Your task to perform on an android device: delete location history Image 0: 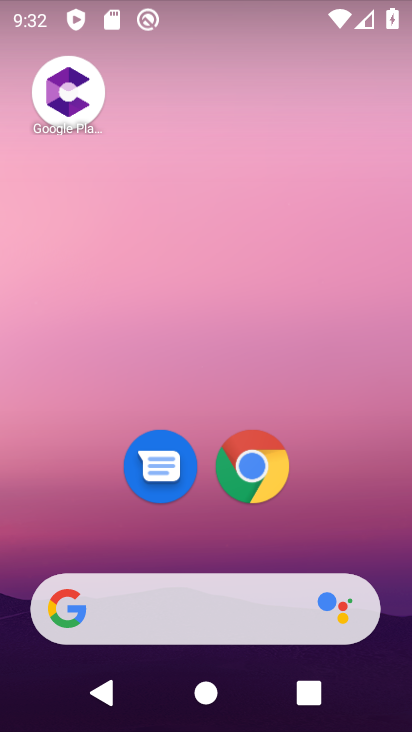
Step 0: drag from (198, 538) to (206, 0)
Your task to perform on an android device: delete location history Image 1: 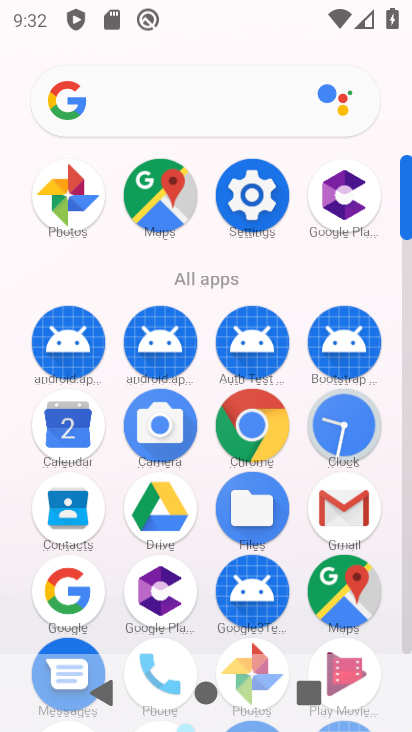
Step 1: click (355, 587)
Your task to perform on an android device: delete location history Image 2: 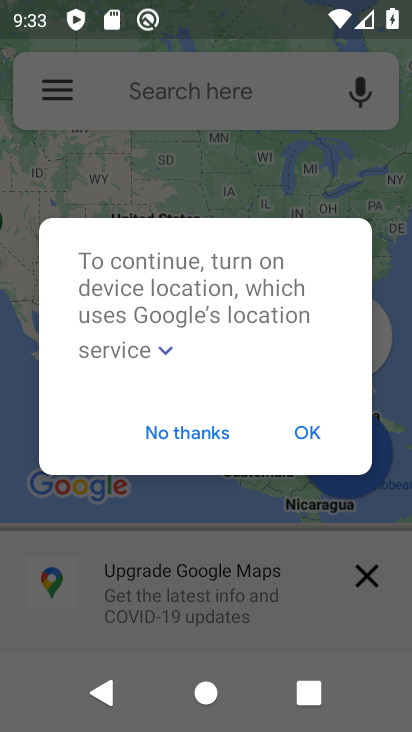
Step 2: click (195, 431)
Your task to perform on an android device: delete location history Image 3: 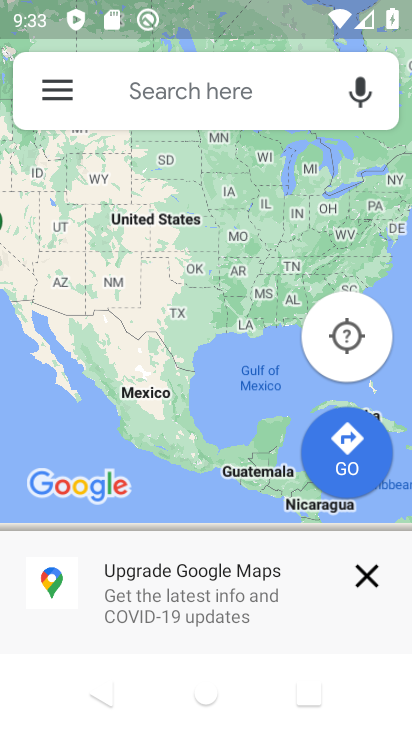
Step 3: click (39, 90)
Your task to perform on an android device: delete location history Image 4: 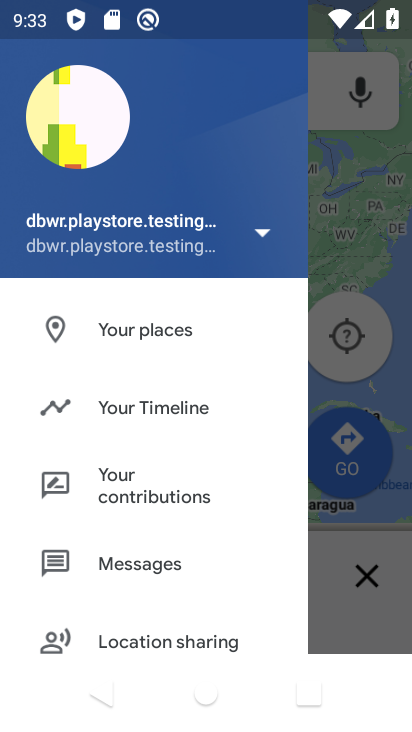
Step 4: click (178, 398)
Your task to perform on an android device: delete location history Image 5: 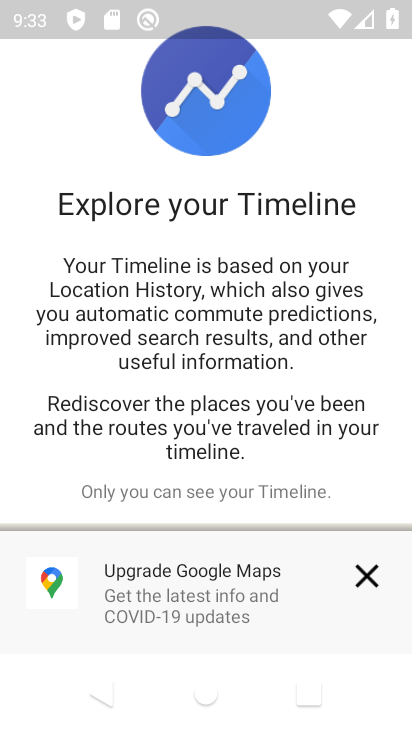
Step 5: click (358, 572)
Your task to perform on an android device: delete location history Image 6: 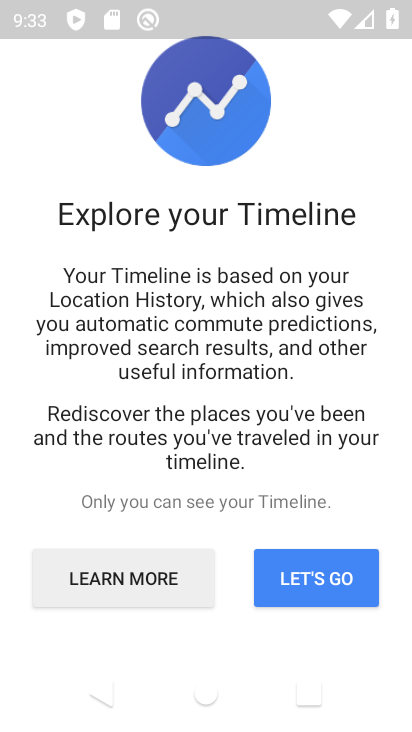
Step 6: drag from (225, 505) to (192, 186)
Your task to perform on an android device: delete location history Image 7: 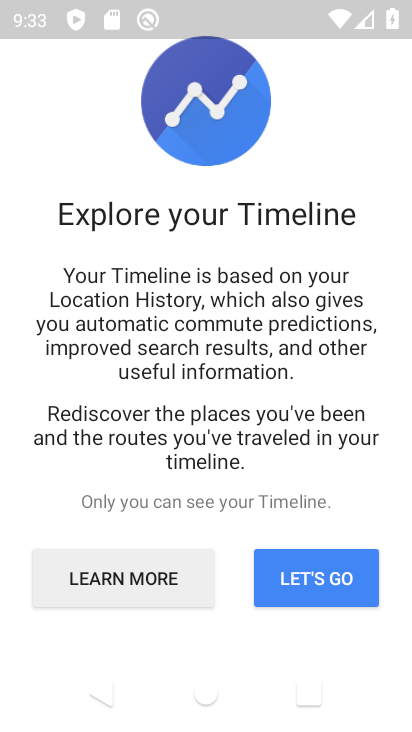
Step 7: click (301, 581)
Your task to perform on an android device: delete location history Image 8: 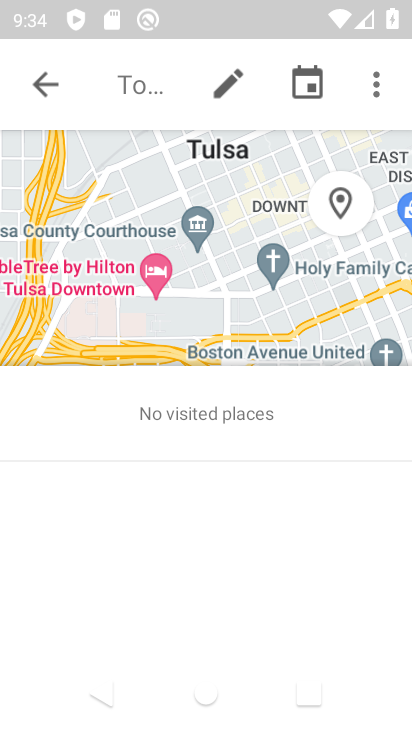
Step 8: click (379, 85)
Your task to perform on an android device: delete location history Image 9: 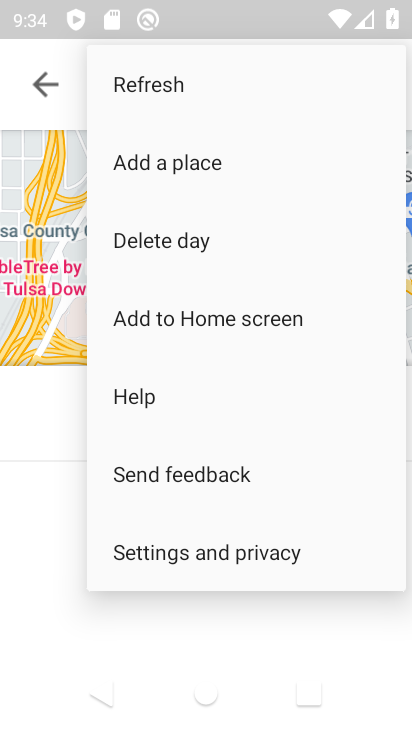
Step 9: click (193, 537)
Your task to perform on an android device: delete location history Image 10: 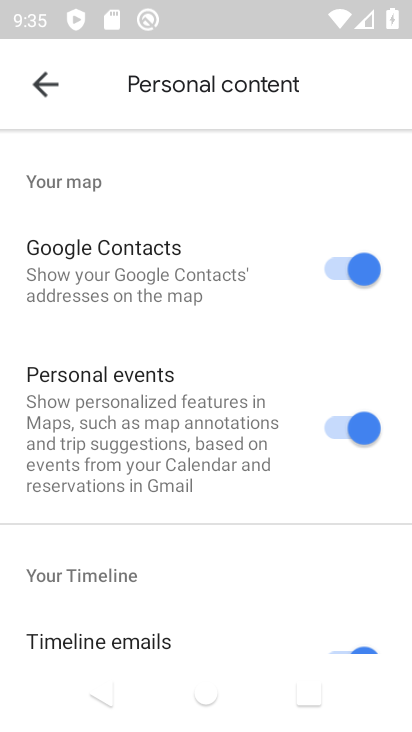
Step 10: drag from (185, 550) to (140, 247)
Your task to perform on an android device: delete location history Image 11: 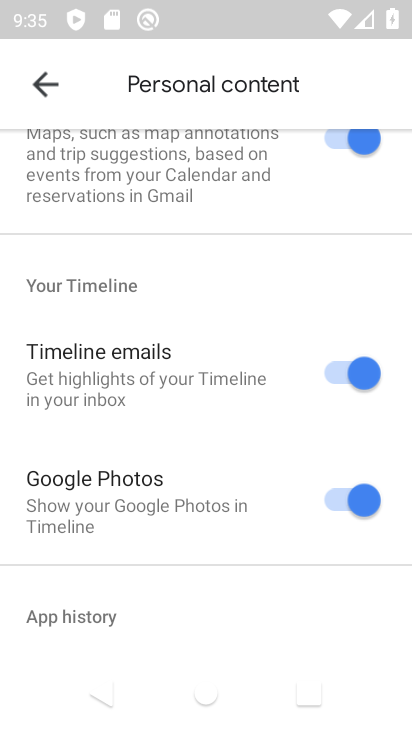
Step 11: drag from (109, 618) to (120, 123)
Your task to perform on an android device: delete location history Image 12: 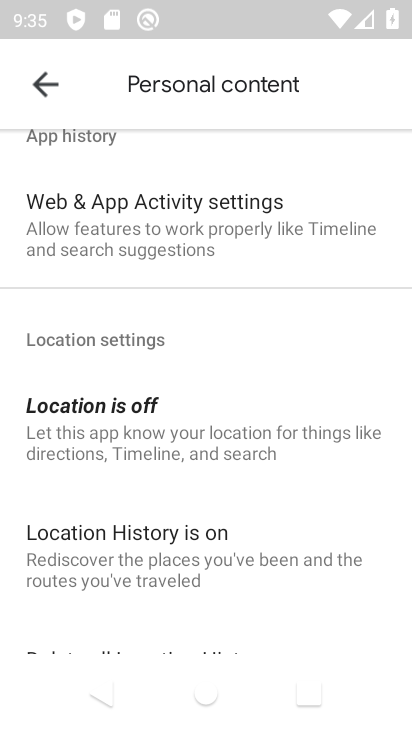
Step 12: drag from (164, 547) to (178, 17)
Your task to perform on an android device: delete location history Image 13: 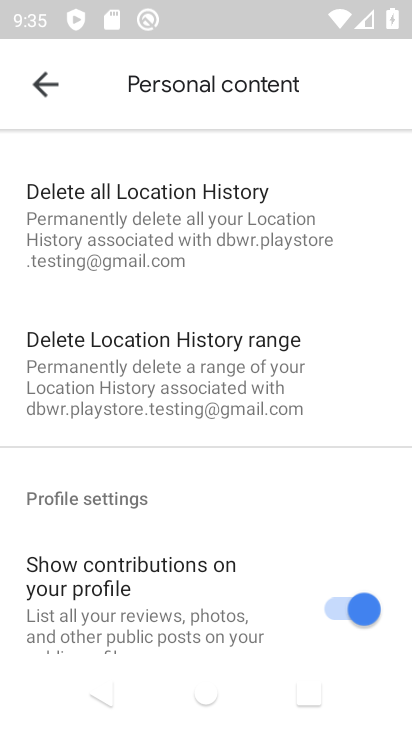
Step 13: click (168, 252)
Your task to perform on an android device: delete location history Image 14: 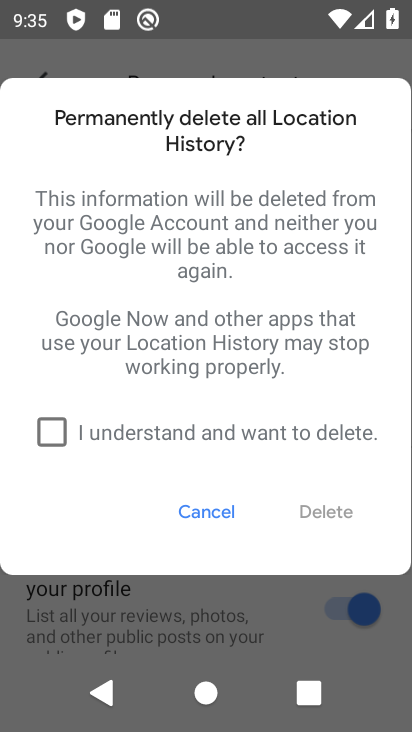
Step 14: click (67, 433)
Your task to perform on an android device: delete location history Image 15: 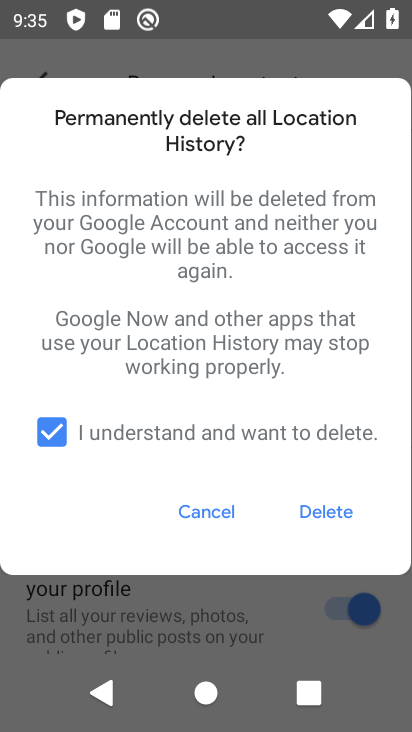
Step 15: click (340, 515)
Your task to perform on an android device: delete location history Image 16: 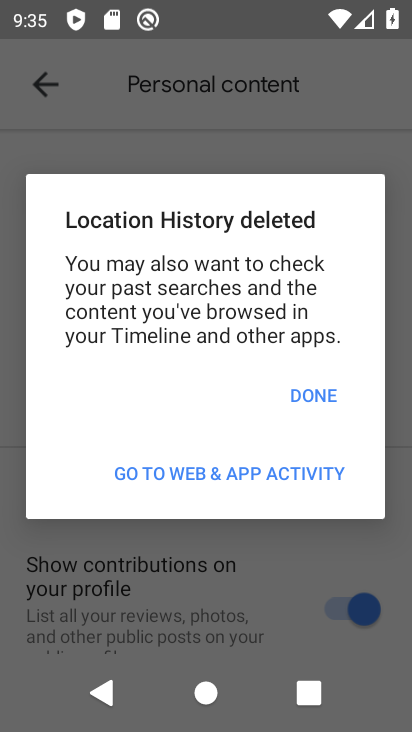
Step 16: task complete